Your task to perform on an android device: Open eBay Image 0: 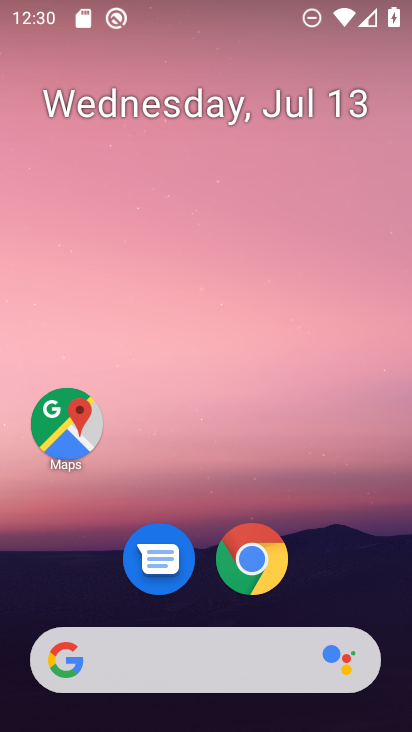
Step 0: drag from (172, 575) to (208, 138)
Your task to perform on an android device: Open eBay Image 1: 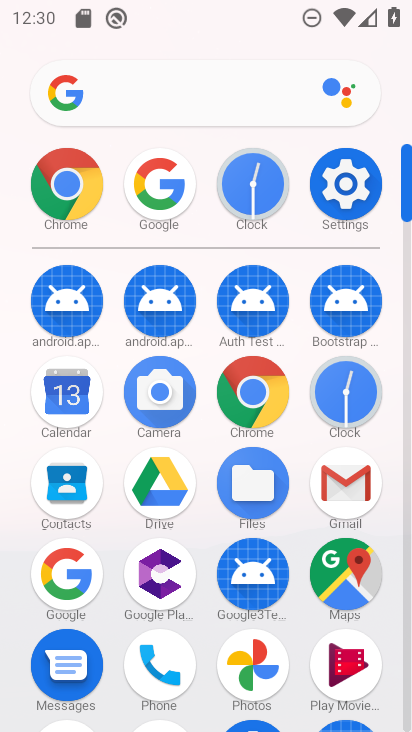
Step 1: drag from (167, 551) to (167, 372)
Your task to perform on an android device: Open eBay Image 2: 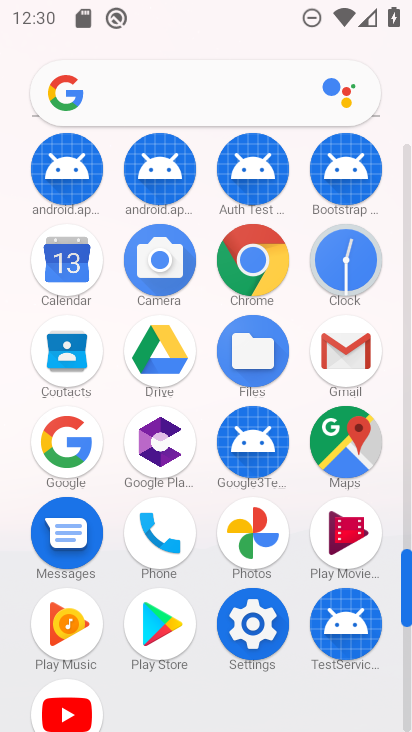
Step 2: click (240, 288)
Your task to perform on an android device: Open eBay Image 3: 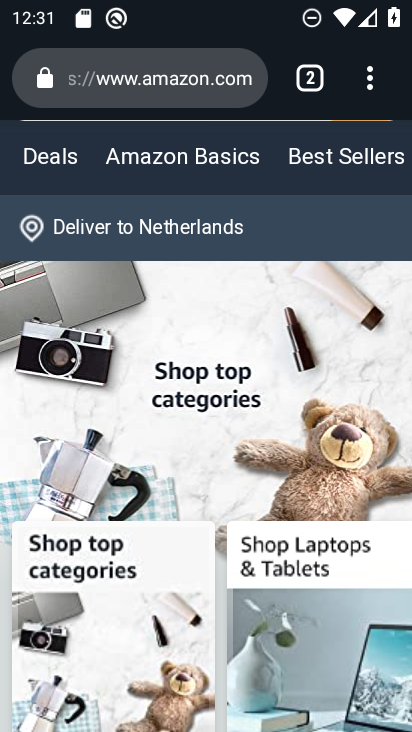
Step 3: click (148, 100)
Your task to perform on an android device: Open eBay Image 4: 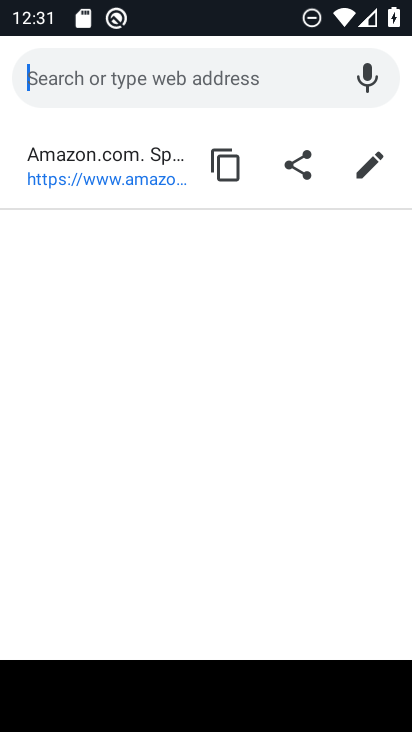
Step 4: type "ebay"
Your task to perform on an android device: Open eBay Image 5: 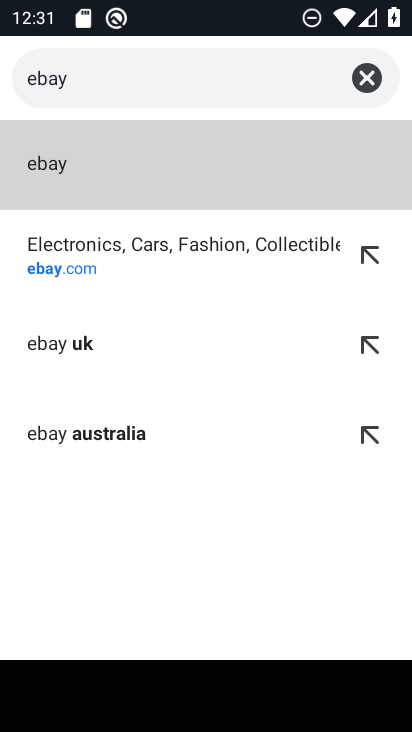
Step 5: click (143, 265)
Your task to perform on an android device: Open eBay Image 6: 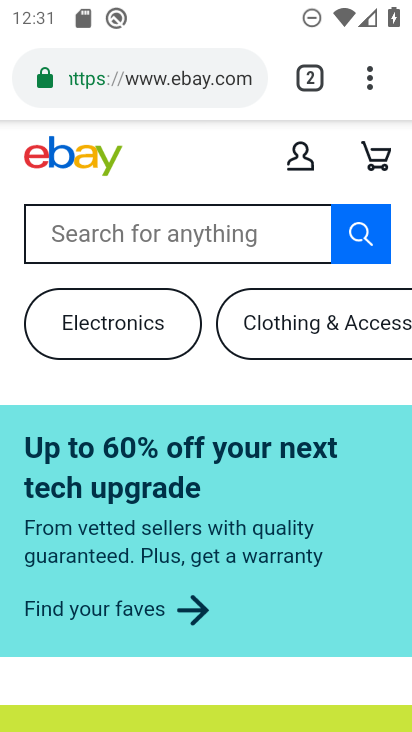
Step 6: task complete